Your task to perform on an android device: empty trash in google photos Image 0: 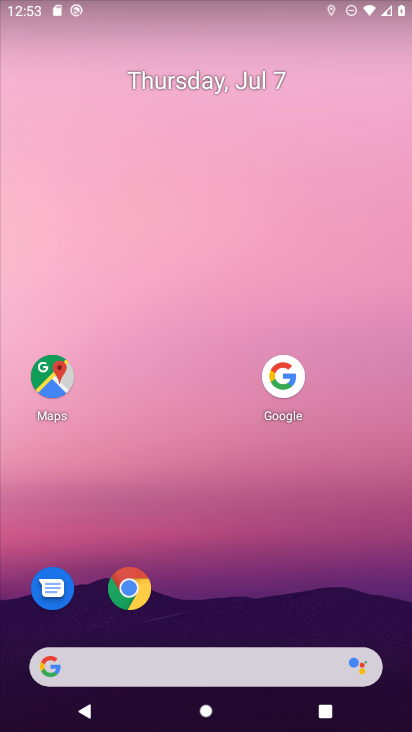
Step 0: drag from (244, 257) to (294, 111)
Your task to perform on an android device: empty trash in google photos Image 1: 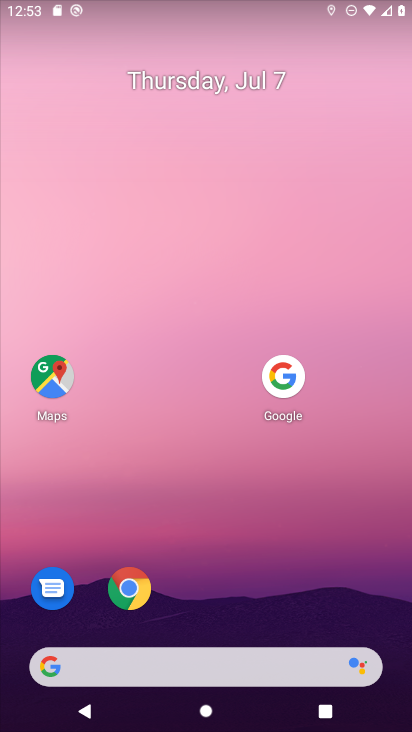
Step 1: drag from (225, 667) to (350, 82)
Your task to perform on an android device: empty trash in google photos Image 2: 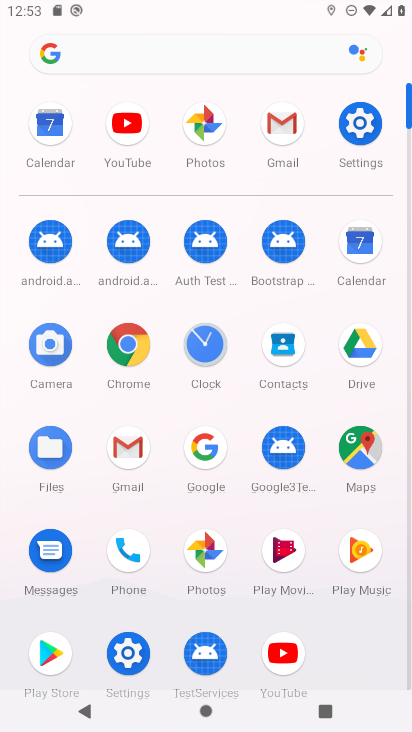
Step 2: click (211, 551)
Your task to perform on an android device: empty trash in google photos Image 3: 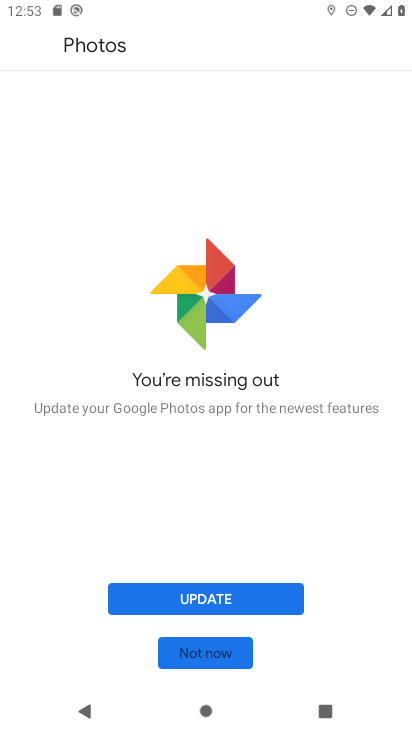
Step 3: click (201, 650)
Your task to perform on an android device: empty trash in google photos Image 4: 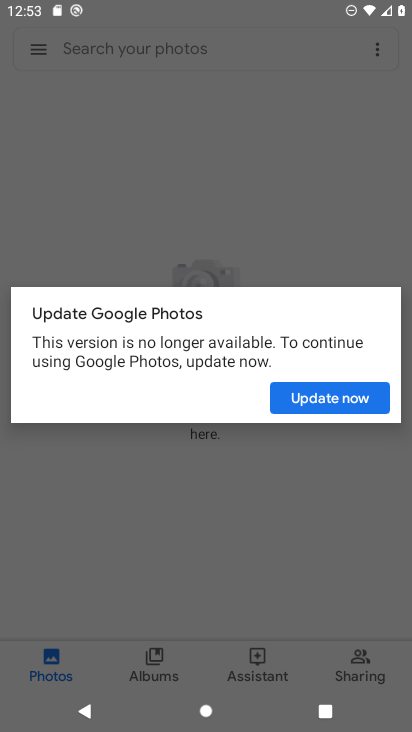
Step 4: click (335, 393)
Your task to perform on an android device: empty trash in google photos Image 5: 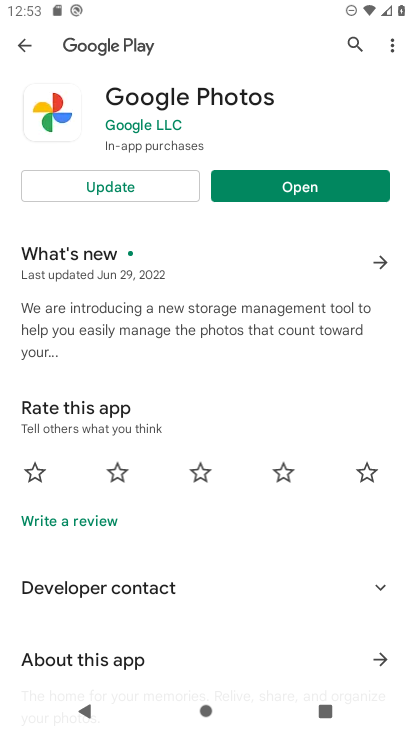
Step 5: click (334, 181)
Your task to perform on an android device: empty trash in google photos Image 6: 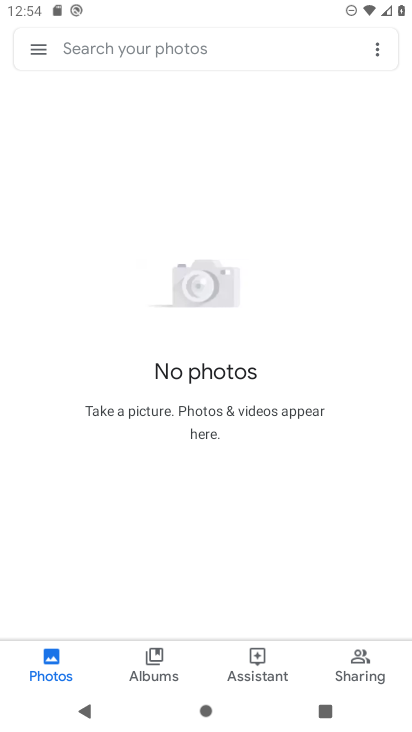
Step 6: click (34, 47)
Your task to perform on an android device: empty trash in google photos Image 7: 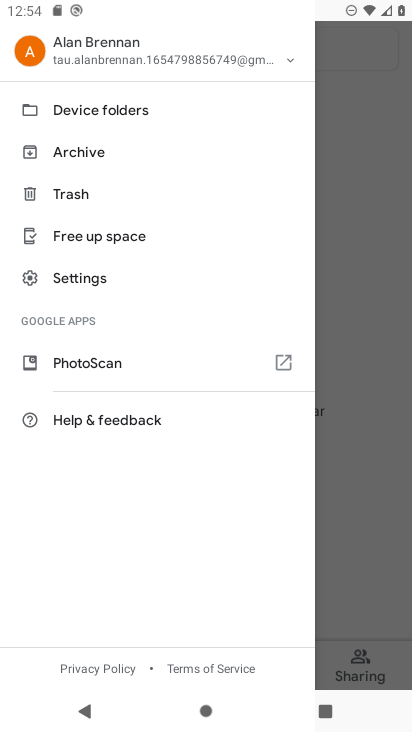
Step 7: click (84, 197)
Your task to perform on an android device: empty trash in google photos Image 8: 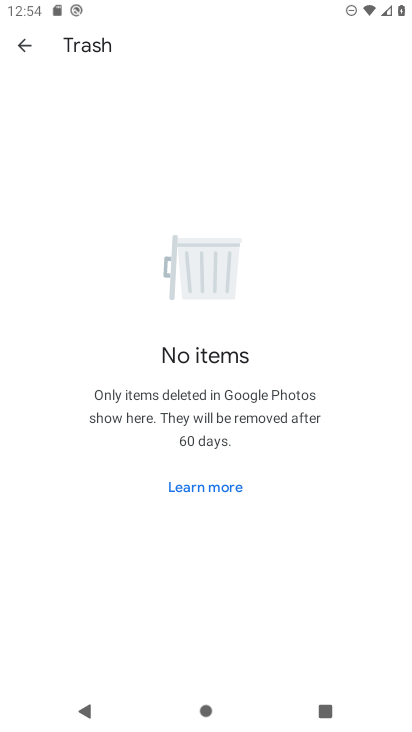
Step 8: task complete